Your task to perform on an android device: Open eBay Image 0: 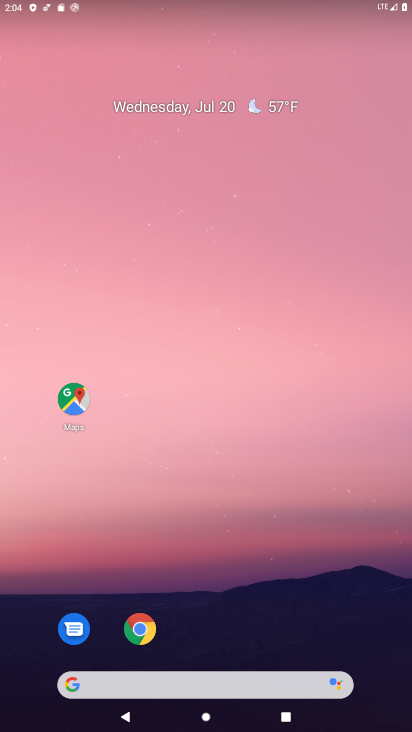
Step 0: drag from (382, 664) to (316, 39)
Your task to perform on an android device: Open eBay Image 1: 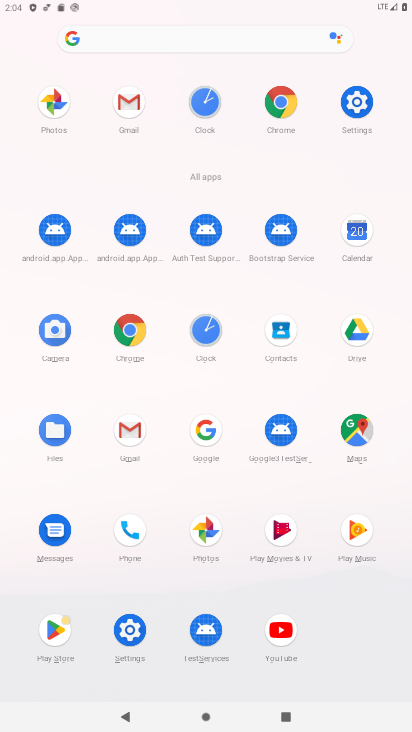
Step 1: click (130, 631)
Your task to perform on an android device: Open eBay Image 2: 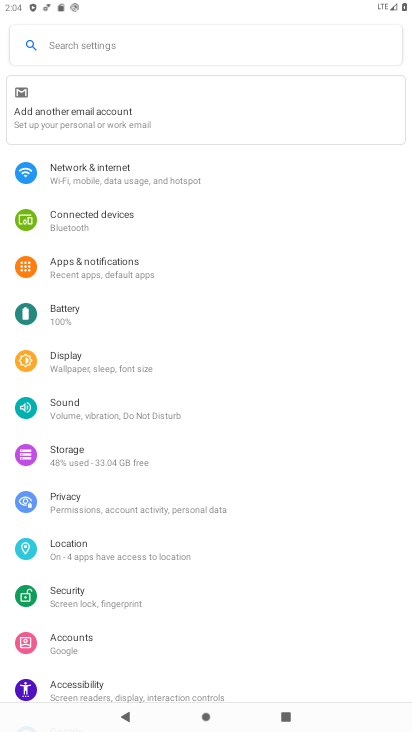
Step 2: press home button
Your task to perform on an android device: Open eBay Image 3: 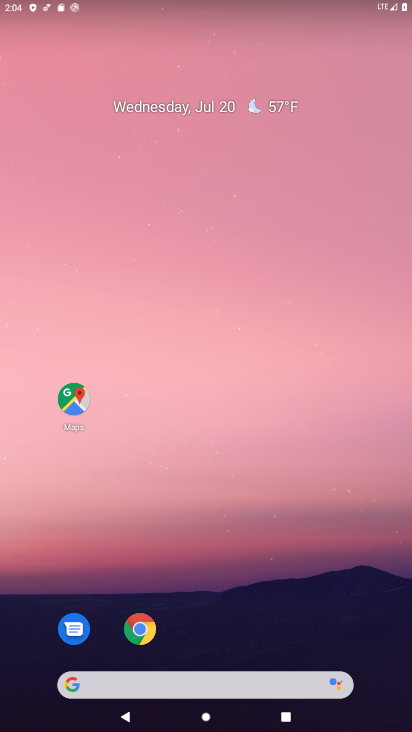
Step 3: click (139, 635)
Your task to perform on an android device: Open eBay Image 4: 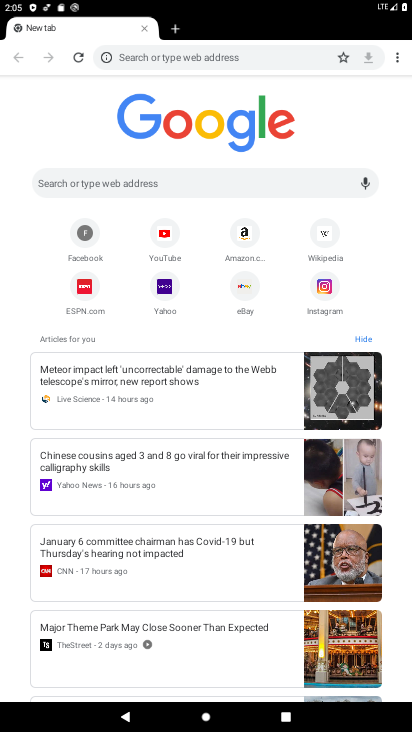
Step 4: click (110, 181)
Your task to perform on an android device: Open eBay Image 5: 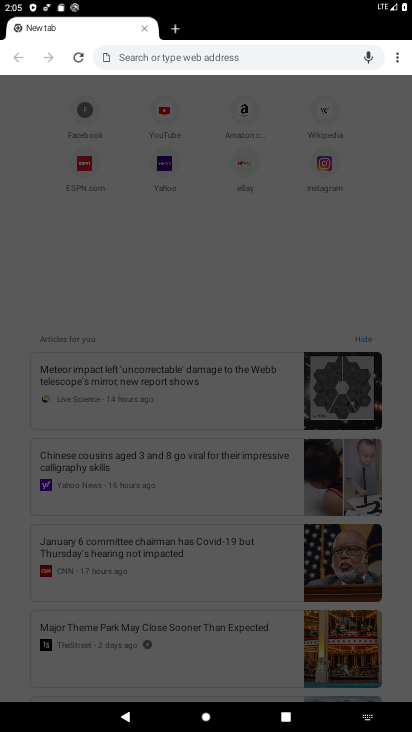
Step 5: type "eBay"
Your task to perform on an android device: Open eBay Image 6: 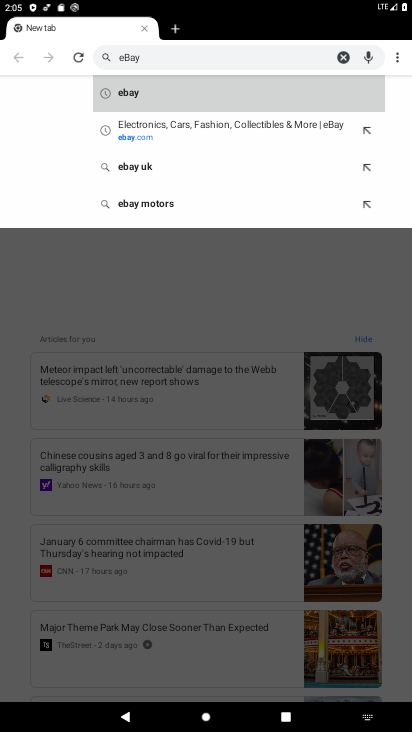
Step 6: click (136, 89)
Your task to perform on an android device: Open eBay Image 7: 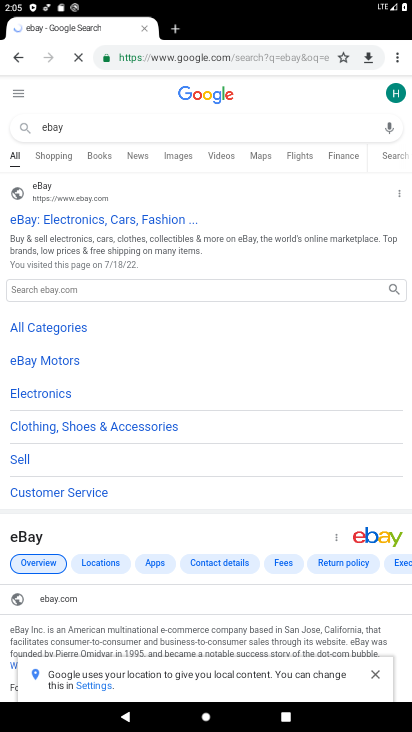
Step 7: click (89, 215)
Your task to perform on an android device: Open eBay Image 8: 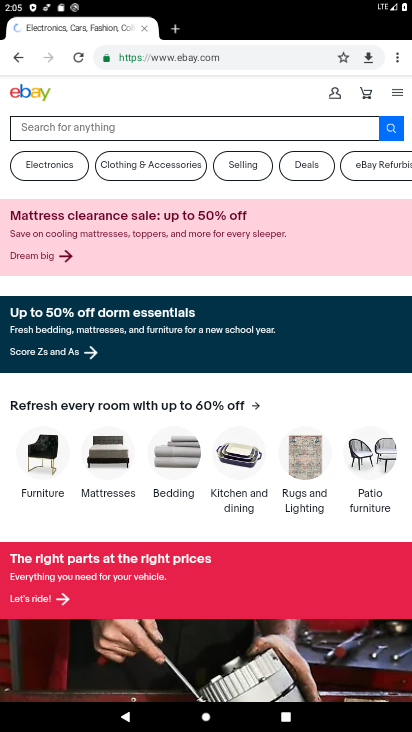
Step 8: drag from (246, 294) to (236, 53)
Your task to perform on an android device: Open eBay Image 9: 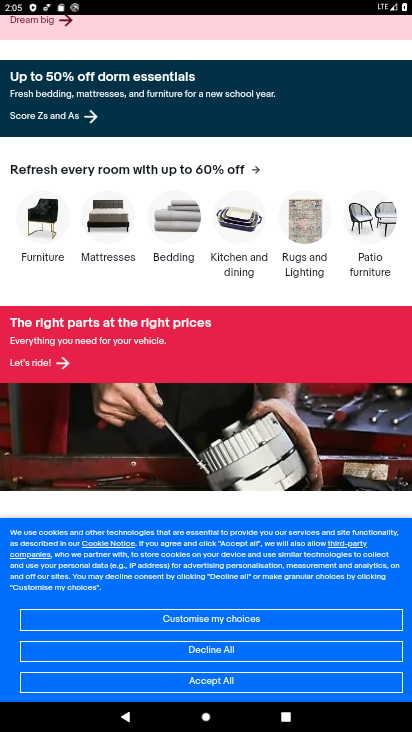
Step 9: drag from (230, 505) to (227, 150)
Your task to perform on an android device: Open eBay Image 10: 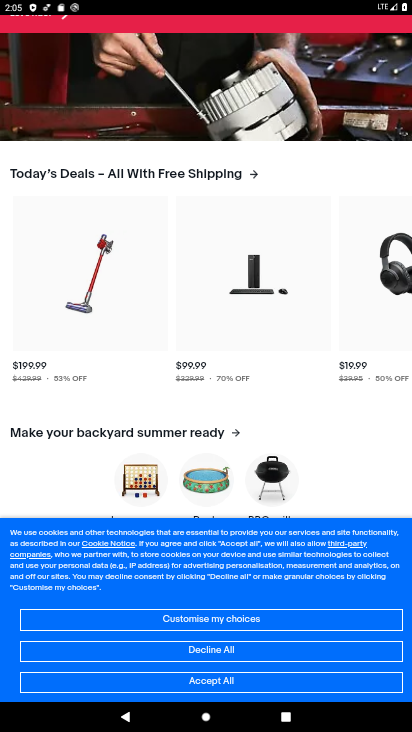
Step 10: click (207, 681)
Your task to perform on an android device: Open eBay Image 11: 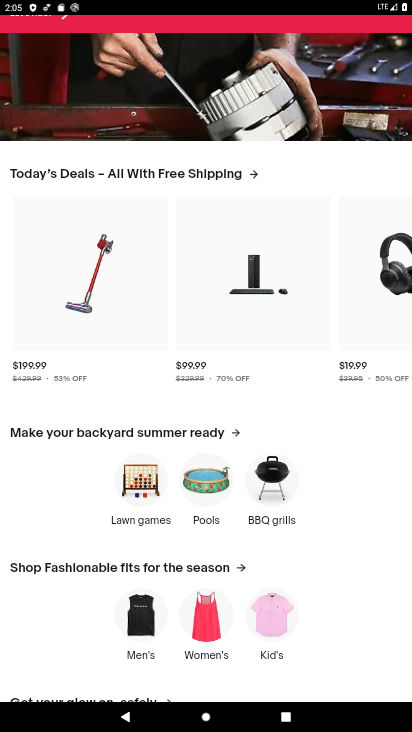
Step 11: task complete